Your task to perform on an android device: empty trash in the gmail app Image 0: 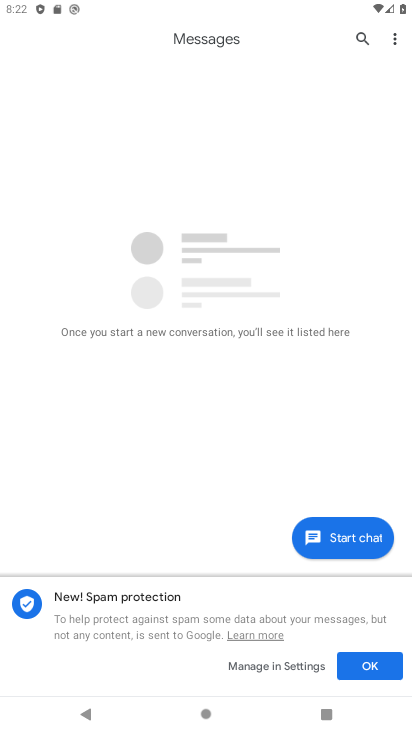
Step 0: press home button
Your task to perform on an android device: empty trash in the gmail app Image 1: 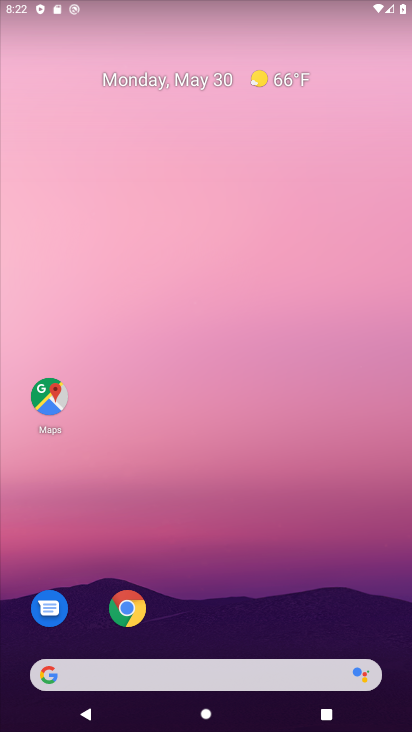
Step 1: drag from (244, 724) to (245, 94)
Your task to perform on an android device: empty trash in the gmail app Image 2: 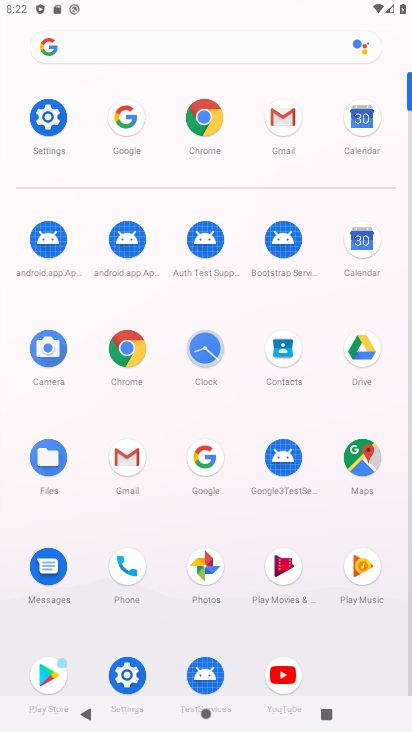
Step 2: click (127, 463)
Your task to perform on an android device: empty trash in the gmail app Image 3: 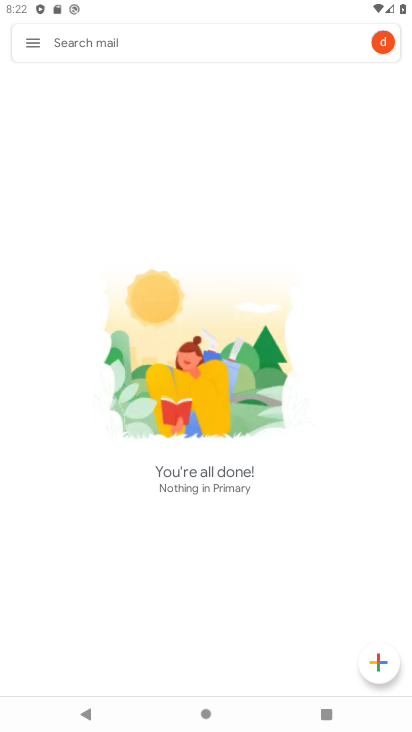
Step 3: click (31, 42)
Your task to perform on an android device: empty trash in the gmail app Image 4: 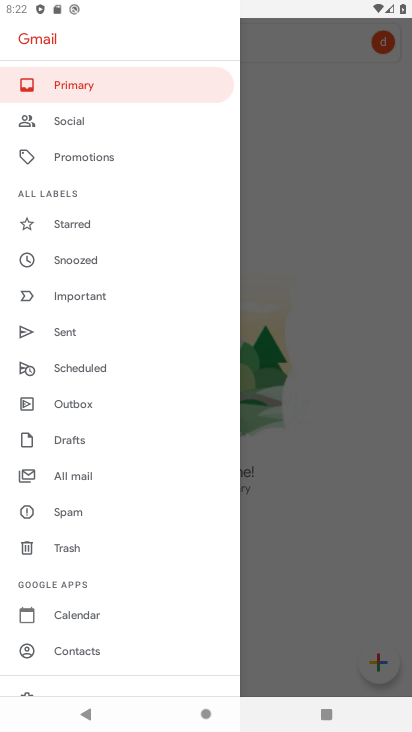
Step 4: click (66, 546)
Your task to perform on an android device: empty trash in the gmail app Image 5: 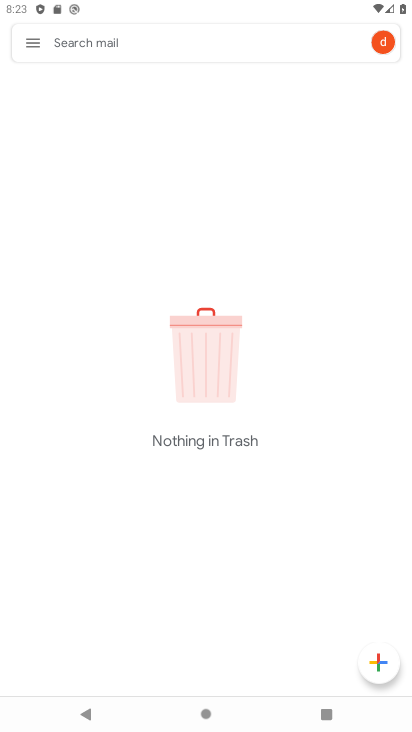
Step 5: task complete